Your task to perform on an android device: toggle javascript in the chrome app Image 0: 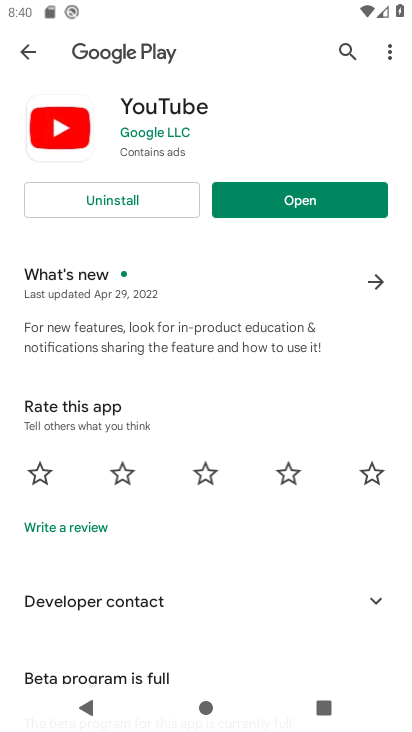
Step 0: press home button
Your task to perform on an android device: toggle javascript in the chrome app Image 1: 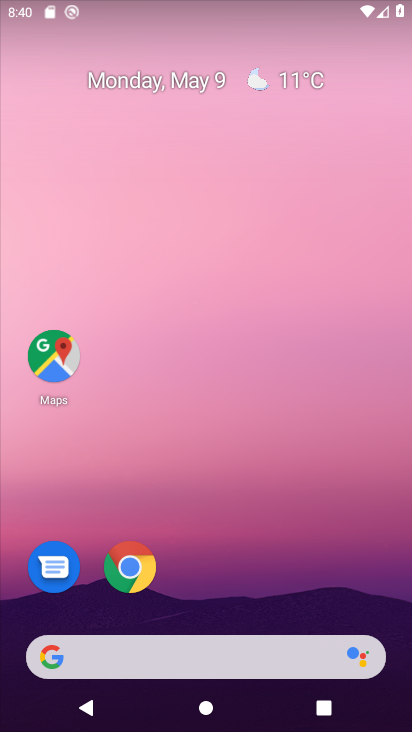
Step 1: click (131, 566)
Your task to perform on an android device: toggle javascript in the chrome app Image 2: 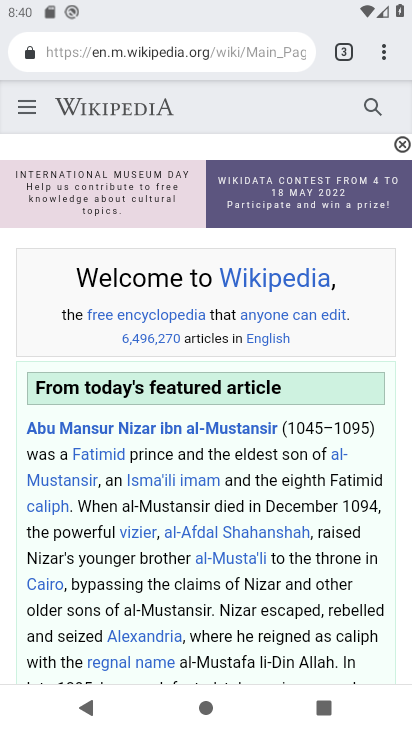
Step 2: drag from (384, 48) to (230, 622)
Your task to perform on an android device: toggle javascript in the chrome app Image 3: 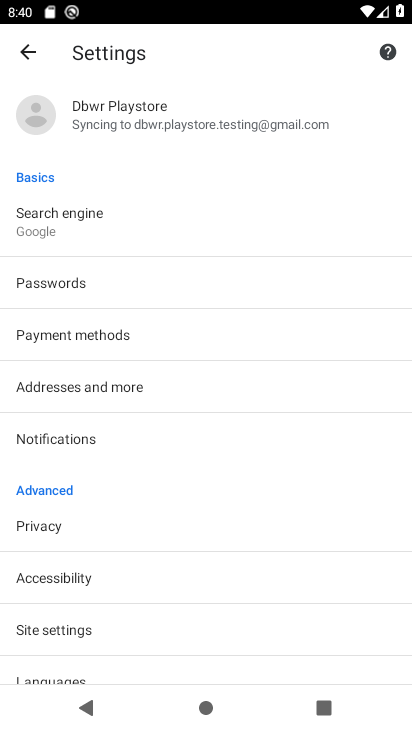
Step 3: click (223, 621)
Your task to perform on an android device: toggle javascript in the chrome app Image 4: 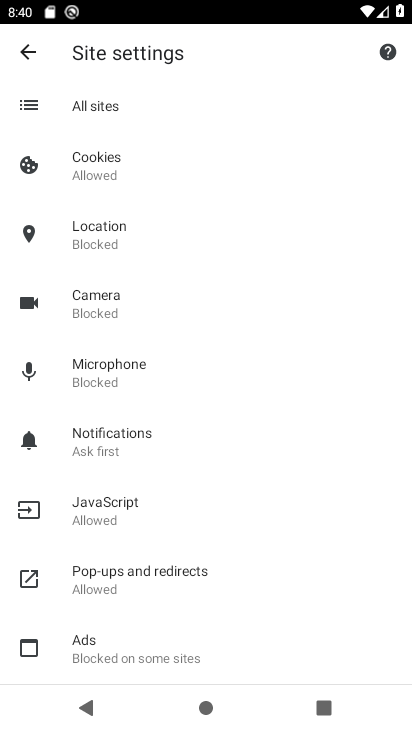
Step 4: click (172, 494)
Your task to perform on an android device: toggle javascript in the chrome app Image 5: 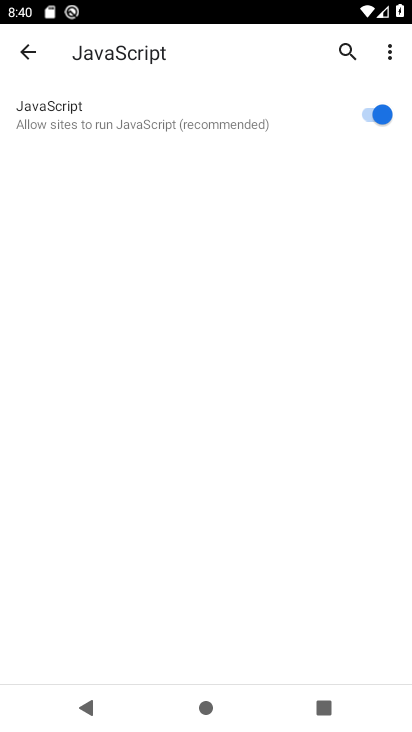
Step 5: click (366, 106)
Your task to perform on an android device: toggle javascript in the chrome app Image 6: 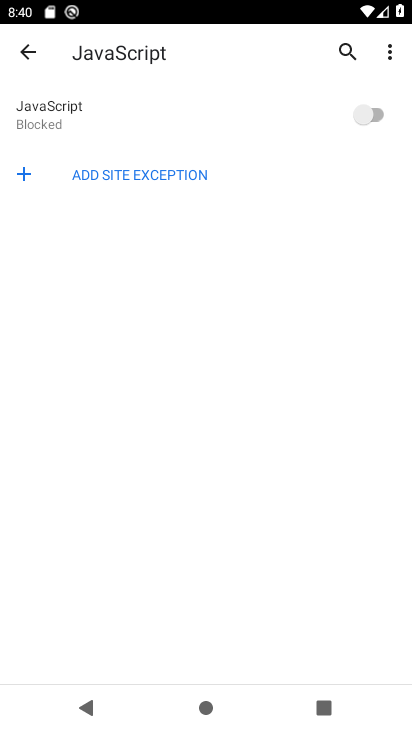
Step 6: task complete